Your task to perform on an android device: Open Google Maps Image 0: 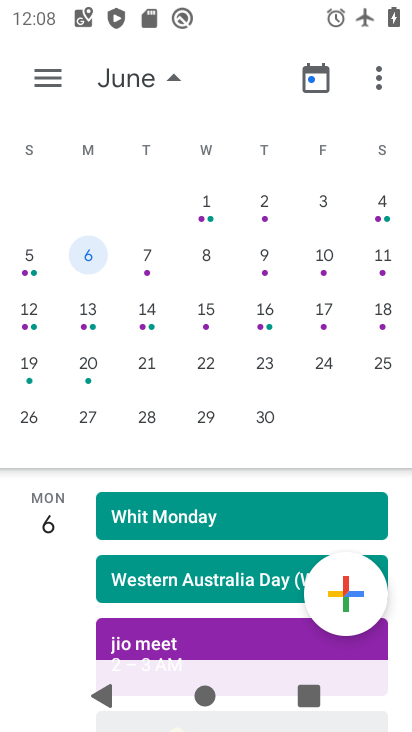
Step 0: press home button
Your task to perform on an android device: Open Google Maps Image 1: 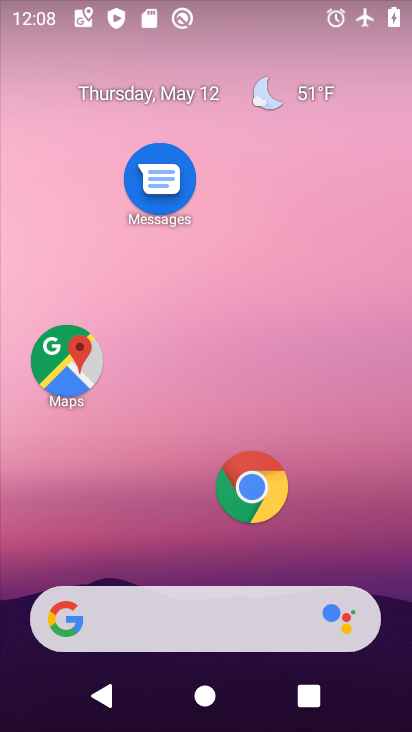
Step 1: click (69, 386)
Your task to perform on an android device: Open Google Maps Image 2: 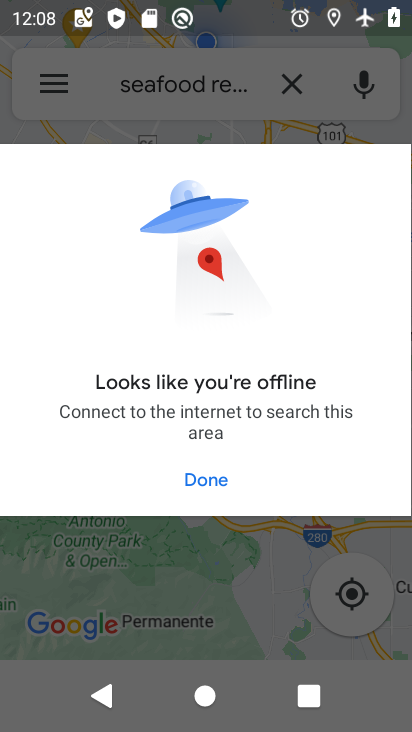
Step 2: click (203, 470)
Your task to perform on an android device: Open Google Maps Image 3: 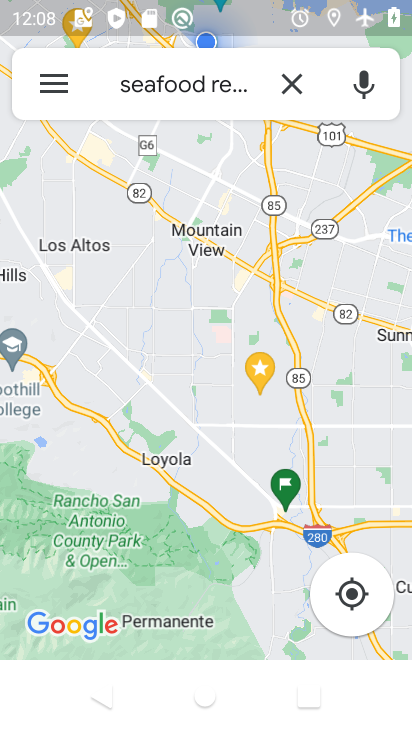
Step 3: task complete